Your task to perform on an android device: View the shopping cart on walmart. Add razer blade to the cart on walmart Image 0: 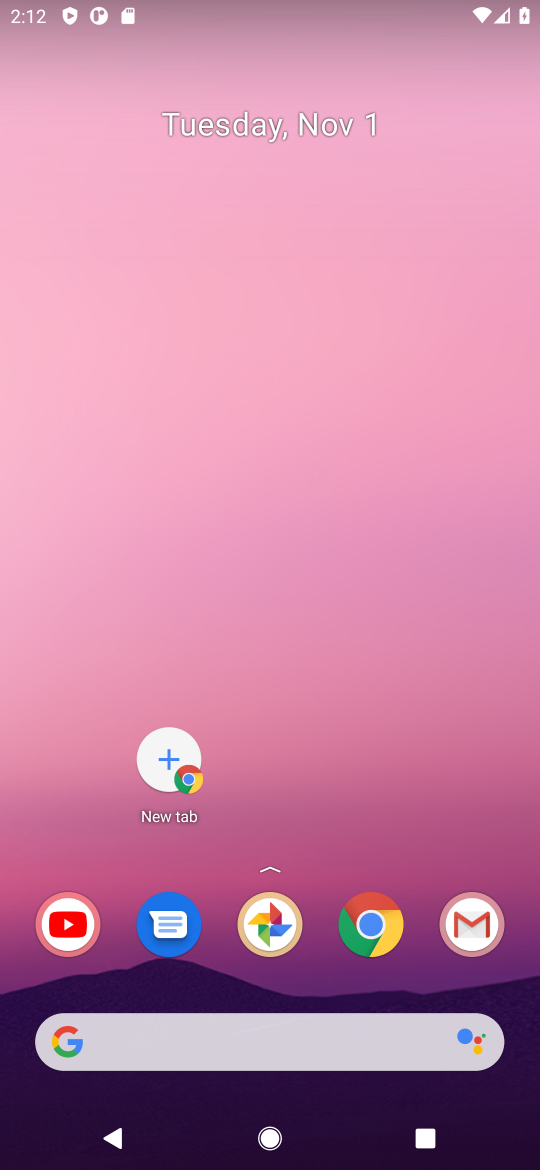
Step 0: click (366, 924)
Your task to perform on an android device: View the shopping cart on walmart. Add razer blade to the cart on walmart Image 1: 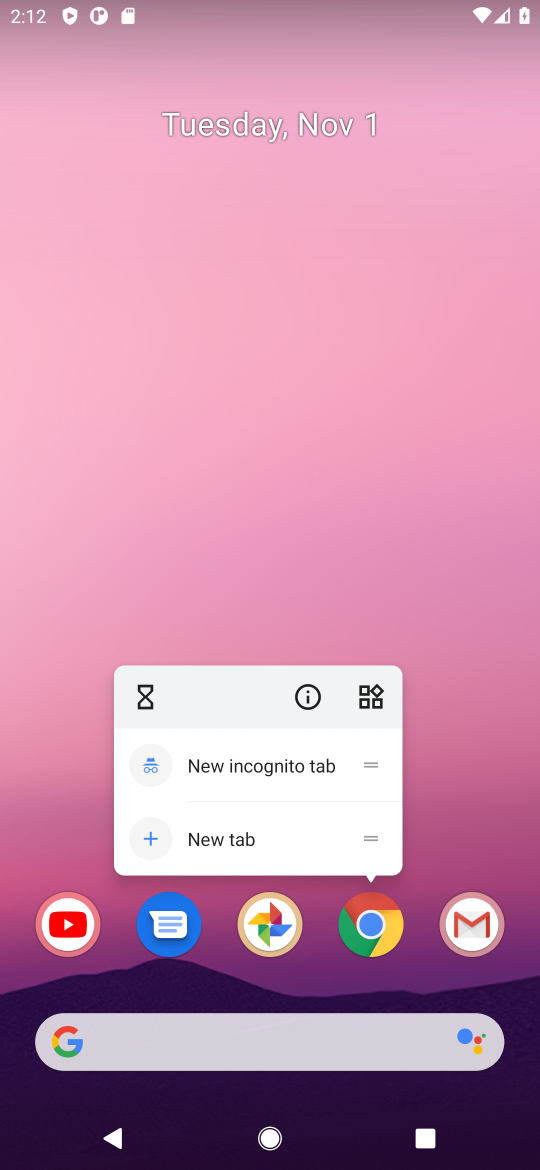
Step 1: click (379, 932)
Your task to perform on an android device: View the shopping cart on walmart. Add razer blade to the cart on walmart Image 2: 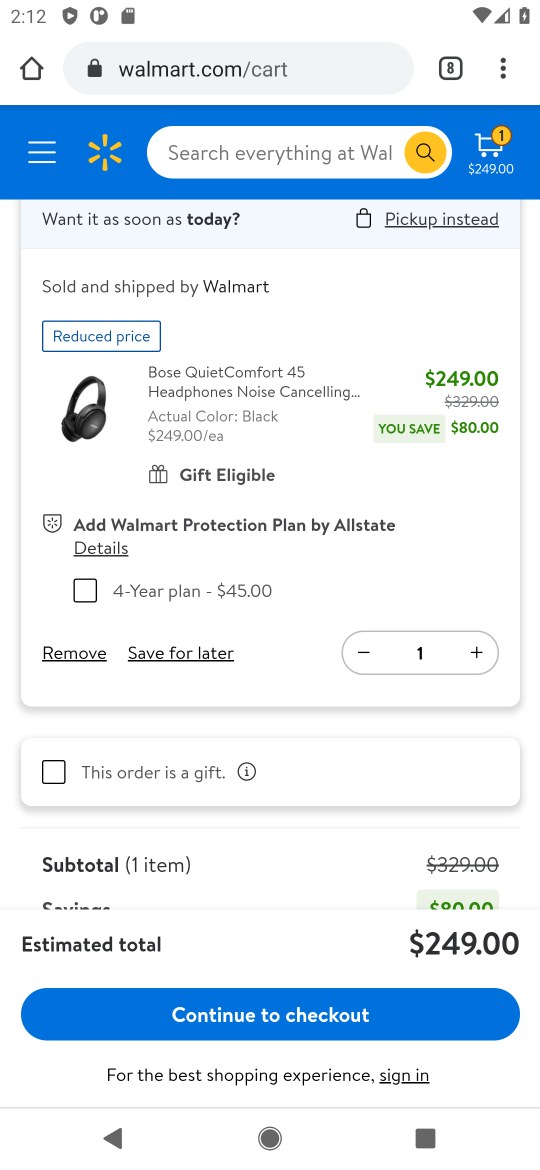
Step 2: click (334, 160)
Your task to perform on an android device: View the shopping cart on walmart. Add razer blade to the cart on walmart Image 3: 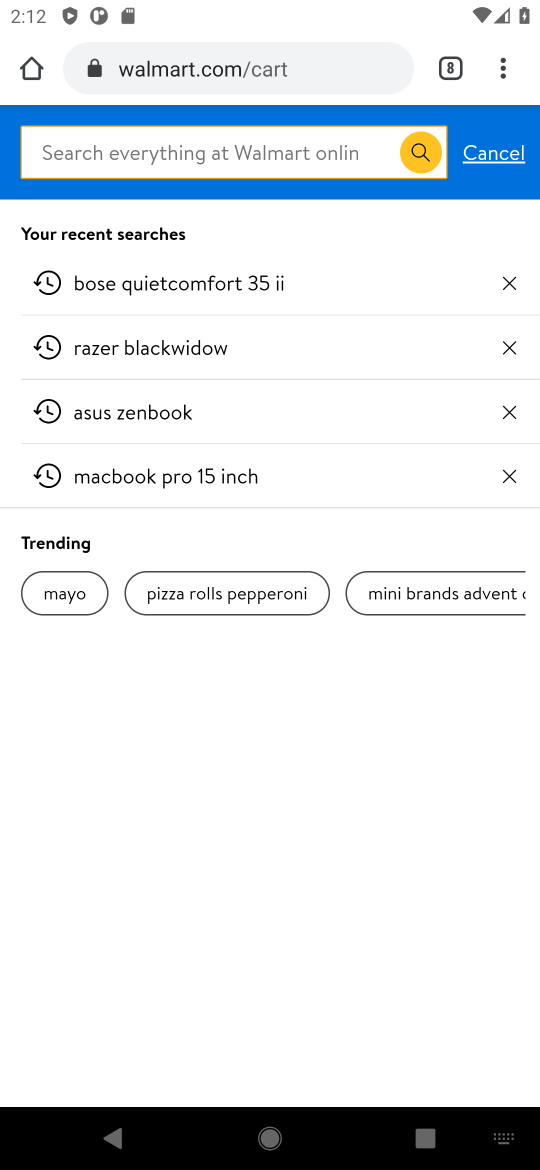
Step 3: type "shopping cart"
Your task to perform on an android device: View the shopping cart on walmart. Add razer blade to the cart on walmart Image 4: 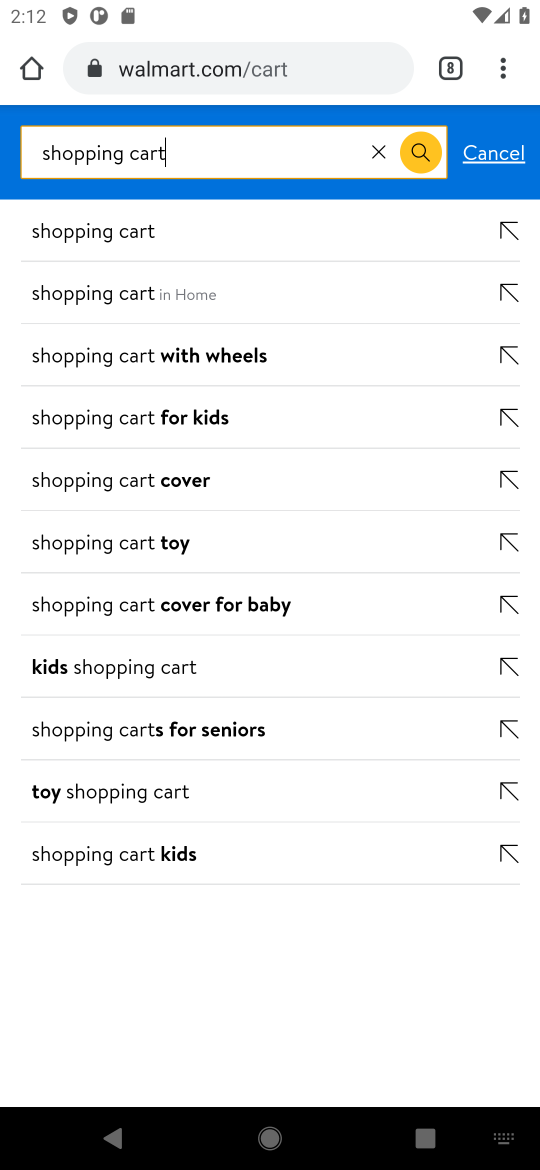
Step 4: click (69, 229)
Your task to perform on an android device: View the shopping cart on walmart. Add razer blade to the cart on walmart Image 5: 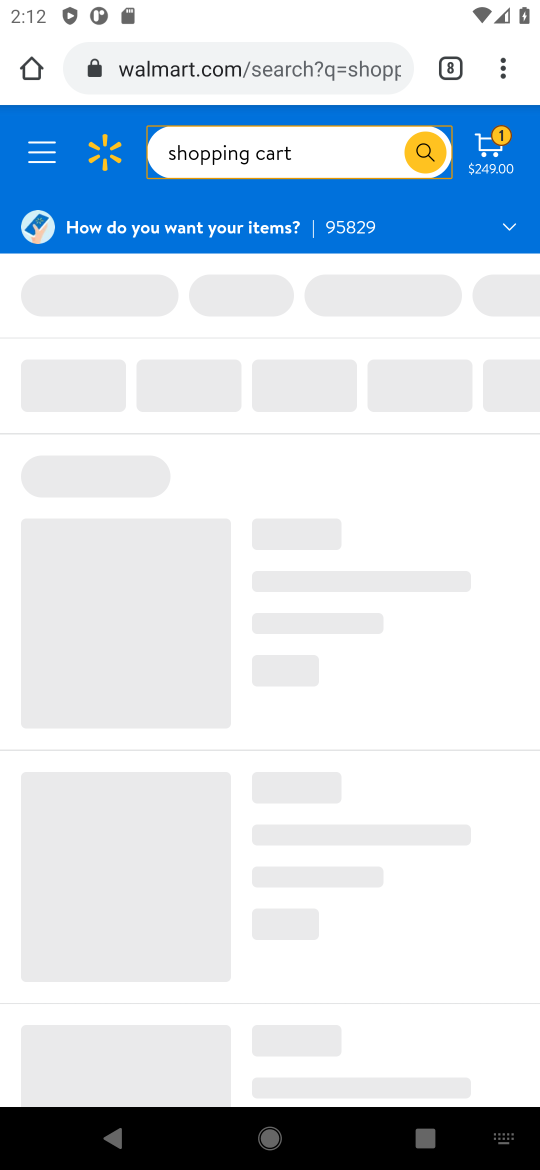
Step 5: click (508, 143)
Your task to perform on an android device: View the shopping cart on walmart. Add razer blade to the cart on walmart Image 6: 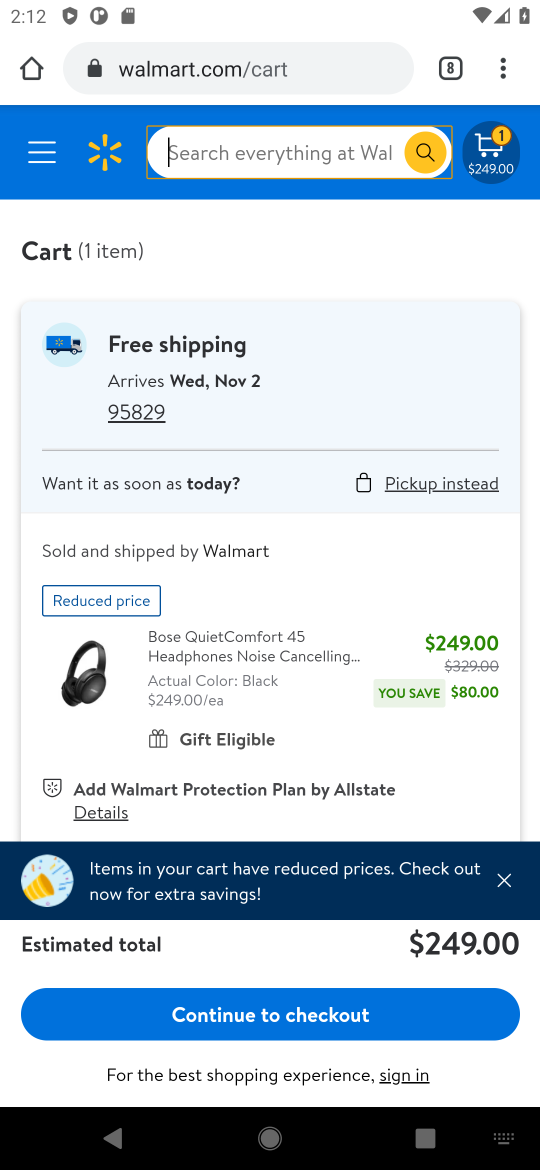
Step 6: click (507, 886)
Your task to perform on an android device: View the shopping cart on walmart. Add razer blade to the cart on walmart Image 7: 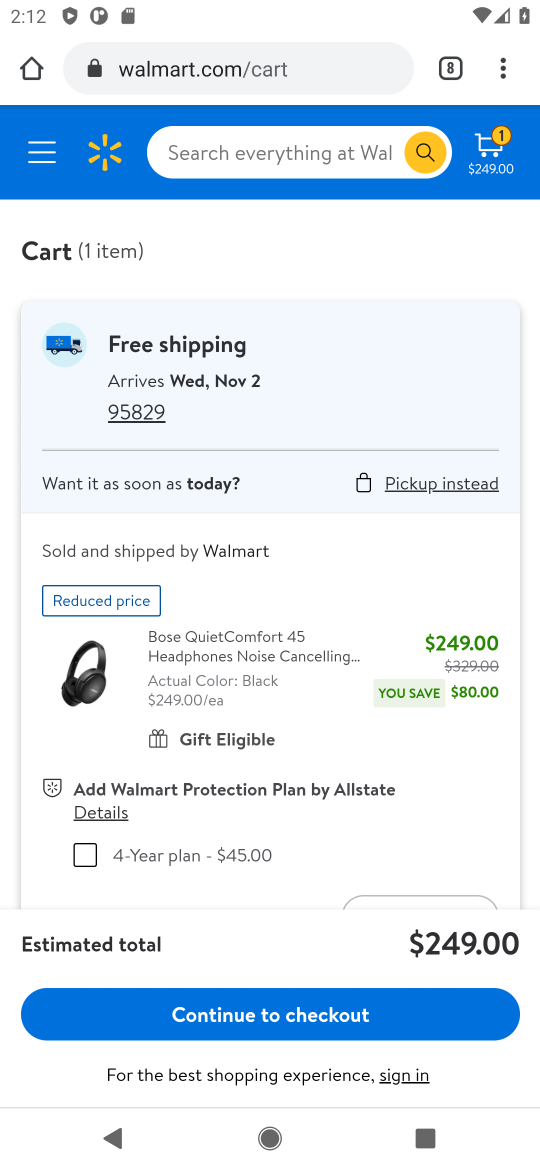
Step 7: drag from (225, 809) to (399, 233)
Your task to perform on an android device: View the shopping cart on walmart. Add razer blade to the cart on walmart Image 8: 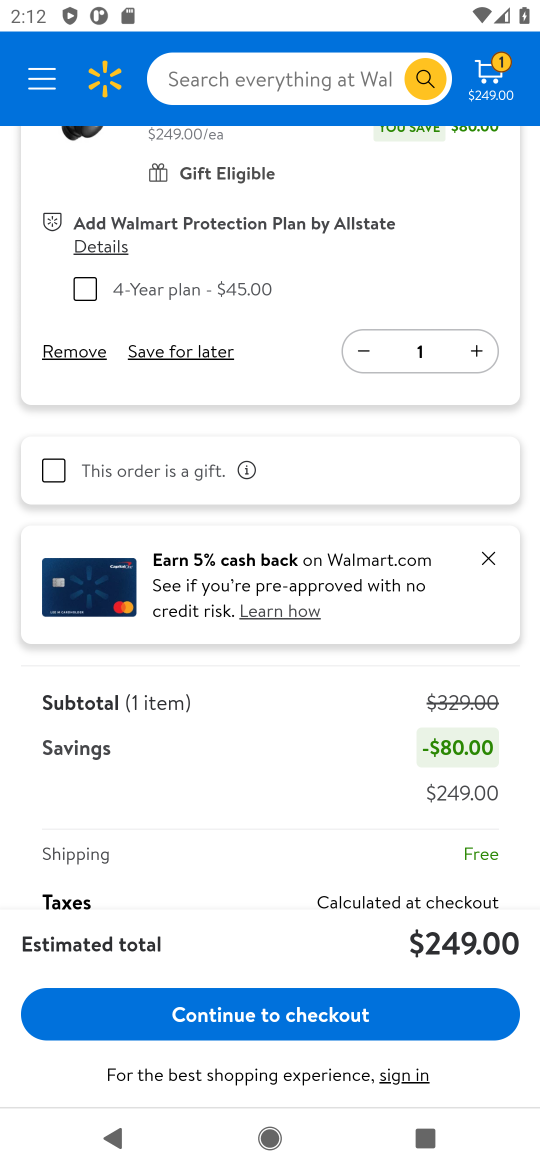
Step 8: click (82, 350)
Your task to perform on an android device: View the shopping cart on walmart. Add razer blade to the cart on walmart Image 9: 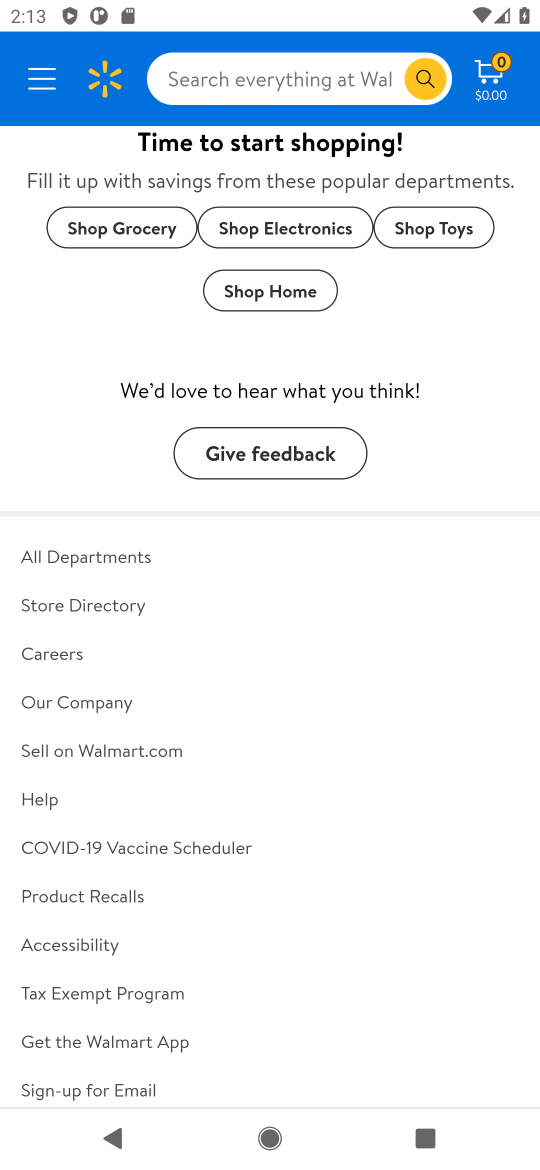
Step 9: drag from (182, 612) to (205, 249)
Your task to perform on an android device: View the shopping cart on walmart. Add razer blade to the cart on walmart Image 10: 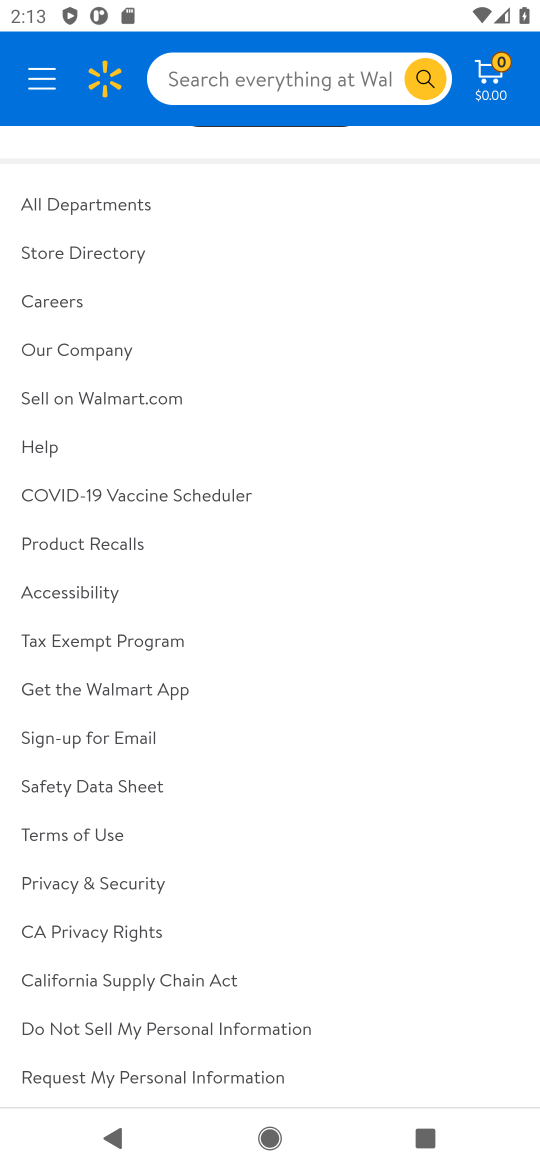
Step 10: drag from (308, 433) to (371, 988)
Your task to perform on an android device: View the shopping cart on walmart. Add razer blade to the cart on walmart Image 11: 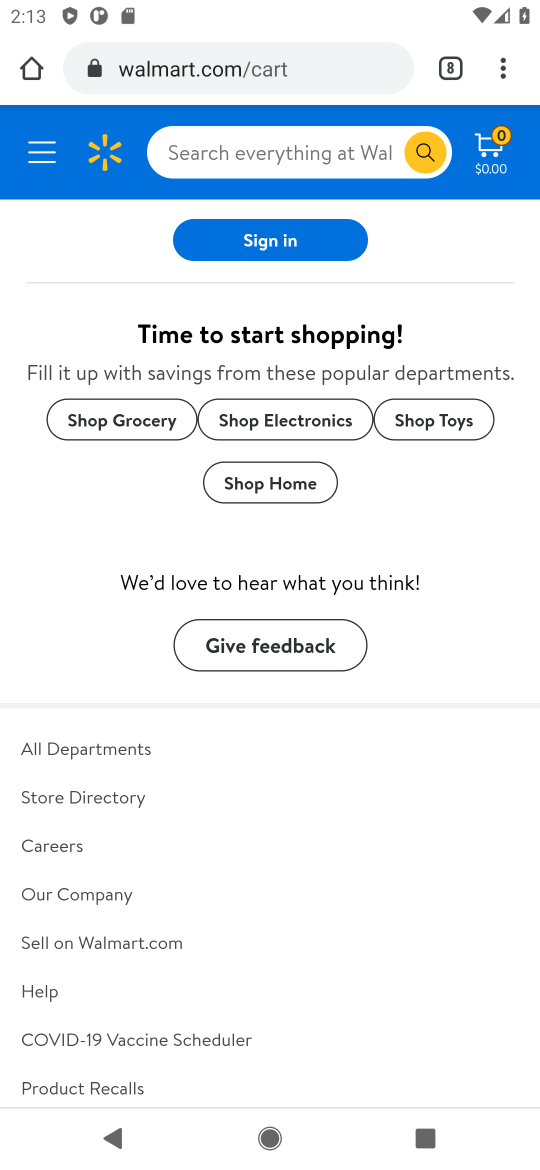
Step 11: drag from (331, 443) to (300, 842)
Your task to perform on an android device: View the shopping cart on walmart. Add razer blade to the cart on walmart Image 12: 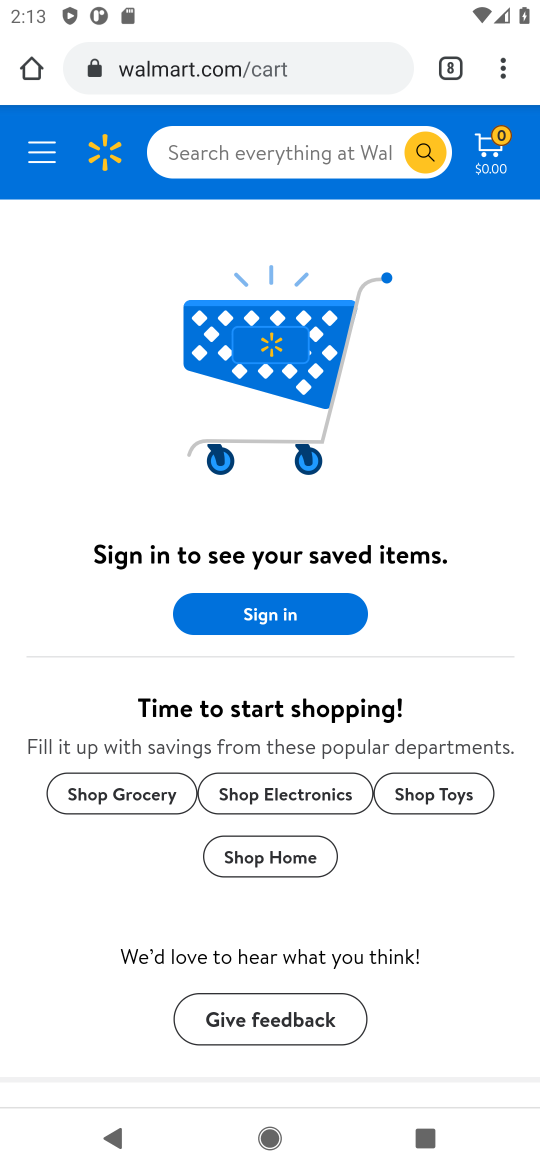
Step 12: click (212, 136)
Your task to perform on an android device: View the shopping cart on walmart. Add razer blade to the cart on walmart Image 13: 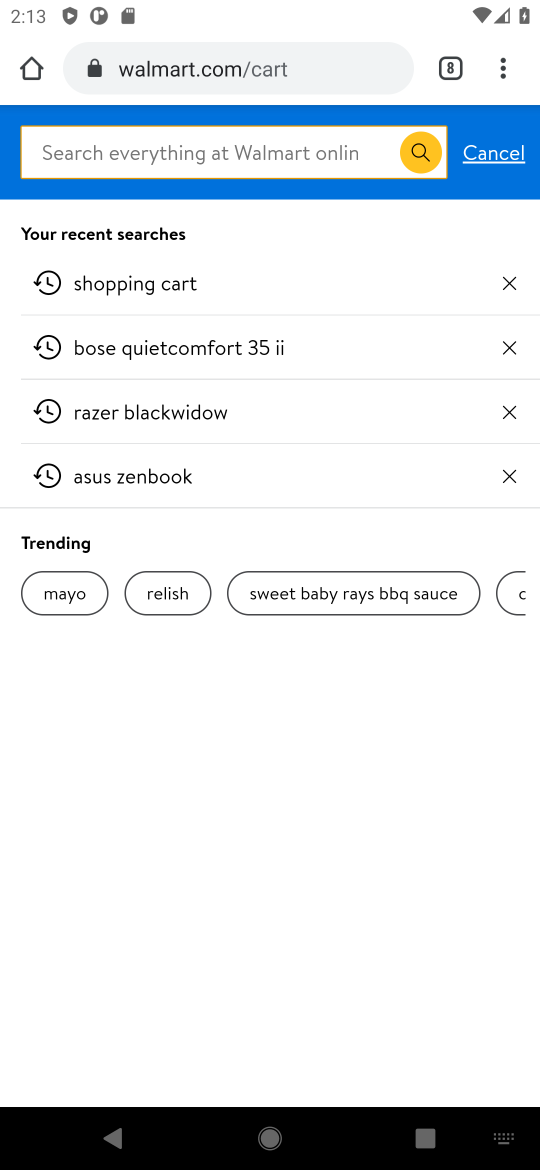
Step 13: drag from (411, 666) to (33, 655)
Your task to perform on an android device: View the shopping cart on walmart. Add razer blade to the cart on walmart Image 14: 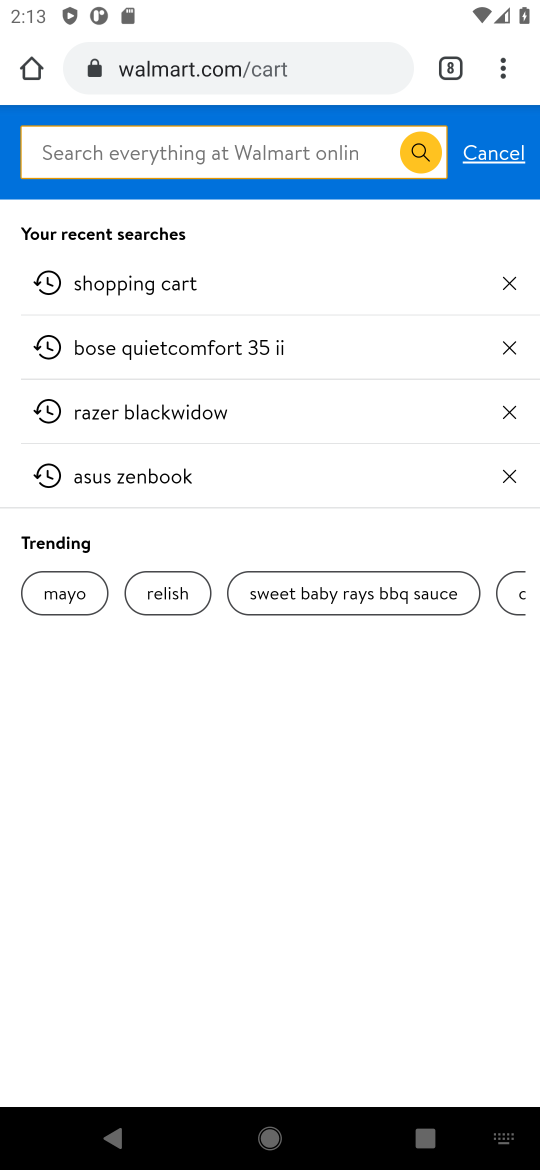
Step 14: drag from (420, 615) to (79, 603)
Your task to perform on an android device: View the shopping cart on walmart. Add razer blade to the cart on walmart Image 15: 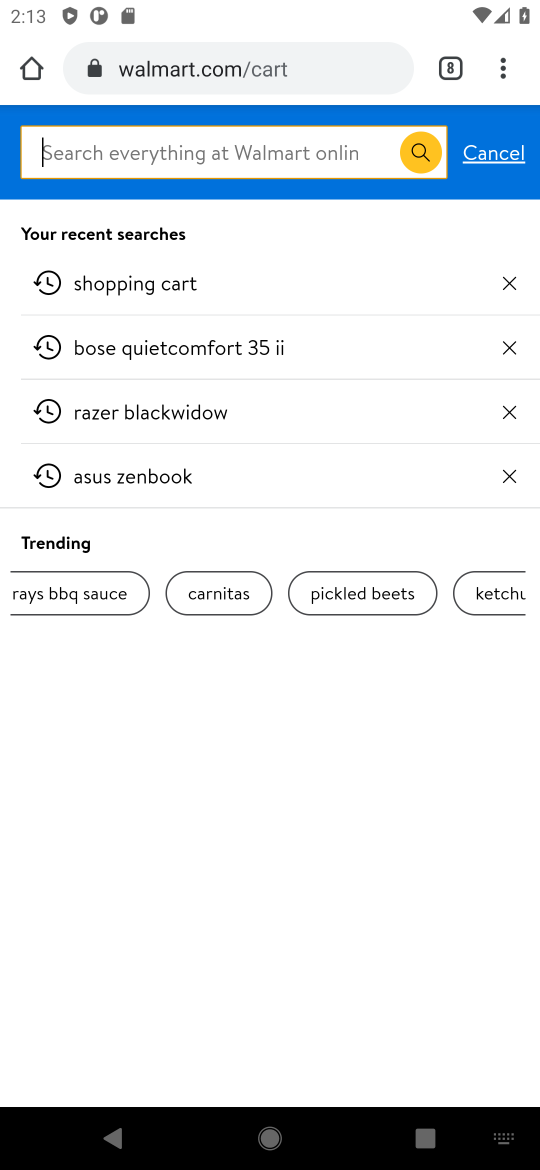
Step 15: drag from (234, 584) to (6, 539)
Your task to perform on an android device: View the shopping cart on walmart. Add razer blade to the cart on walmart Image 16: 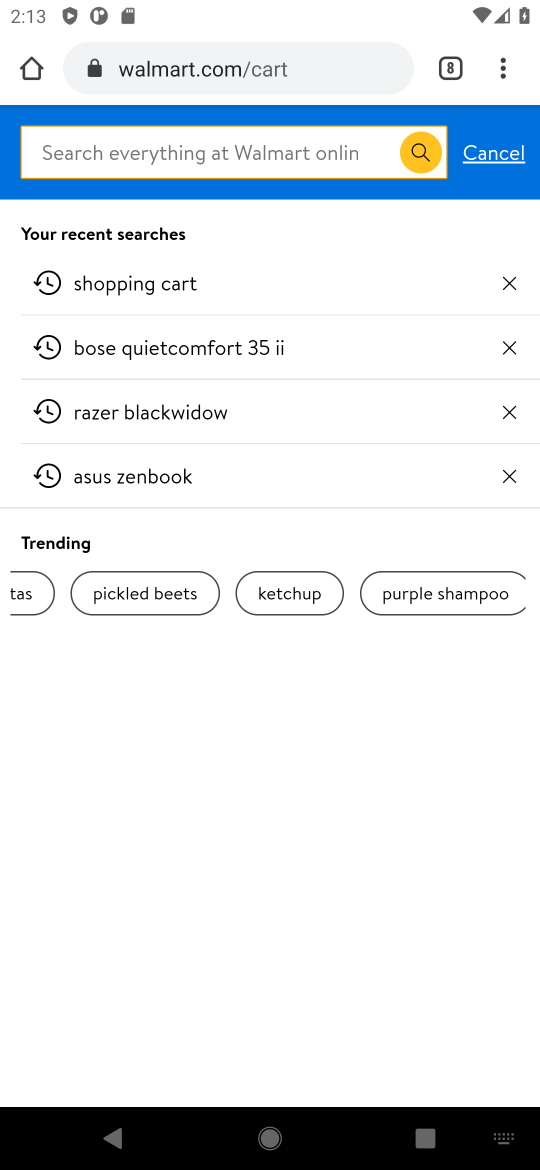
Step 16: type "razer blade"
Your task to perform on an android device: View the shopping cart on walmart. Add razer blade to the cart on walmart Image 17: 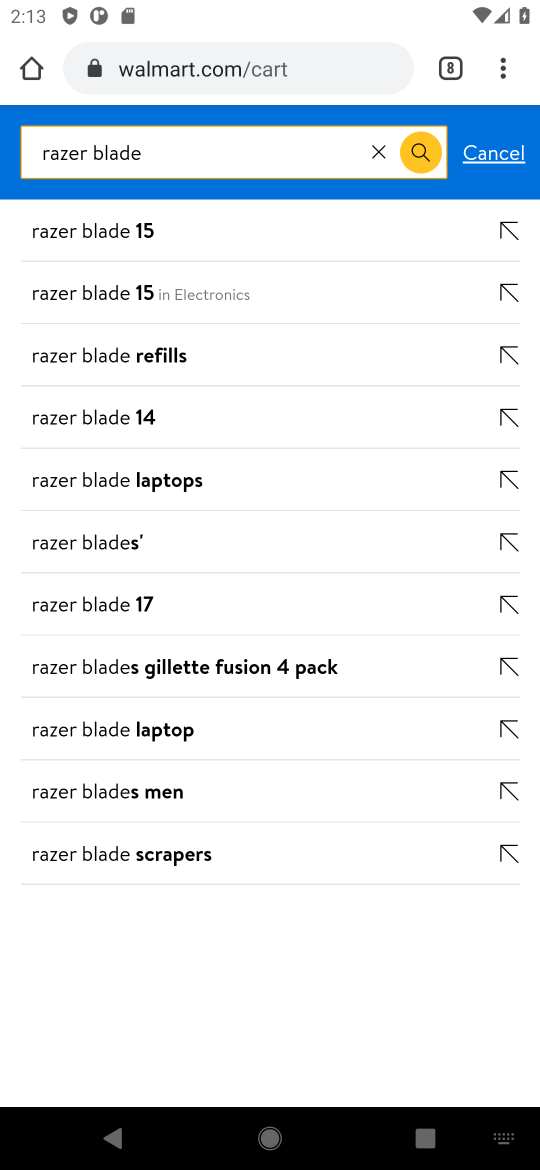
Step 17: click (61, 544)
Your task to perform on an android device: View the shopping cart on walmart. Add razer blade to the cart on walmart Image 18: 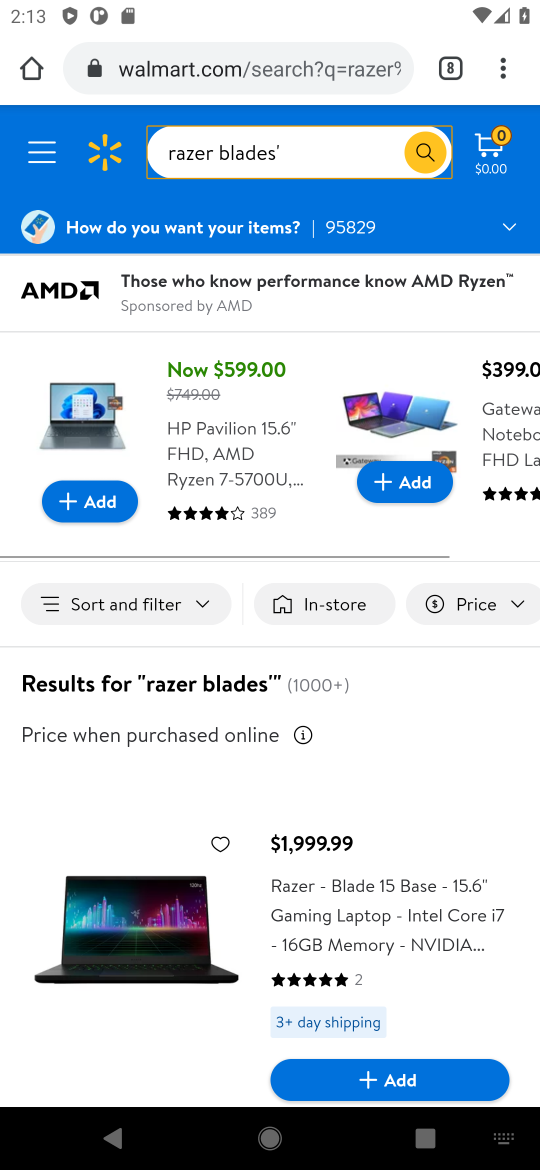
Step 18: drag from (239, 821) to (237, 503)
Your task to perform on an android device: View the shopping cart on walmart. Add razer blade to the cart on walmart Image 19: 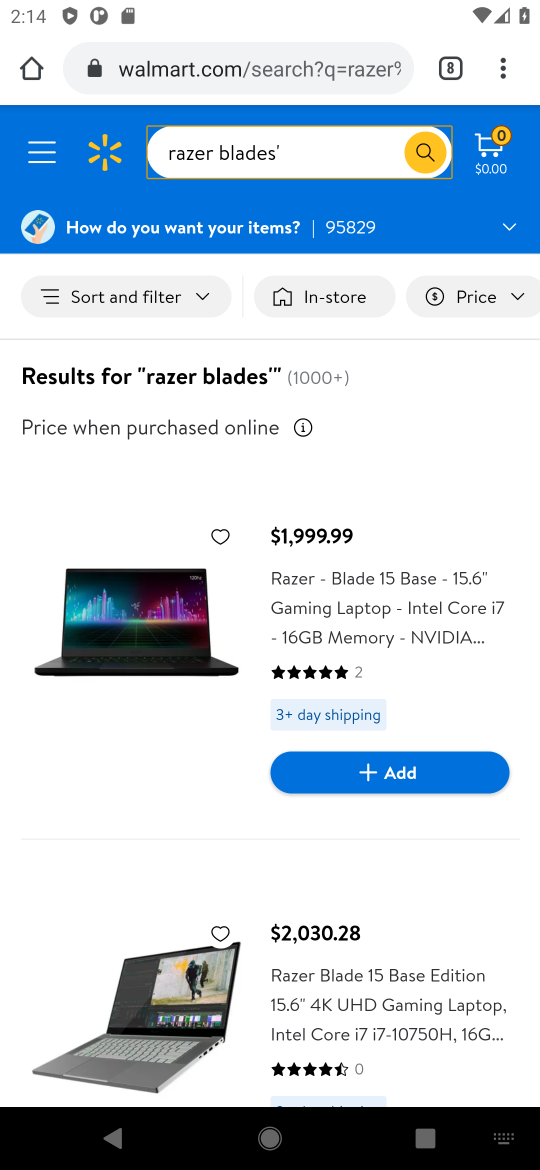
Step 19: click (177, 622)
Your task to perform on an android device: View the shopping cart on walmart. Add razer blade to the cart on walmart Image 20: 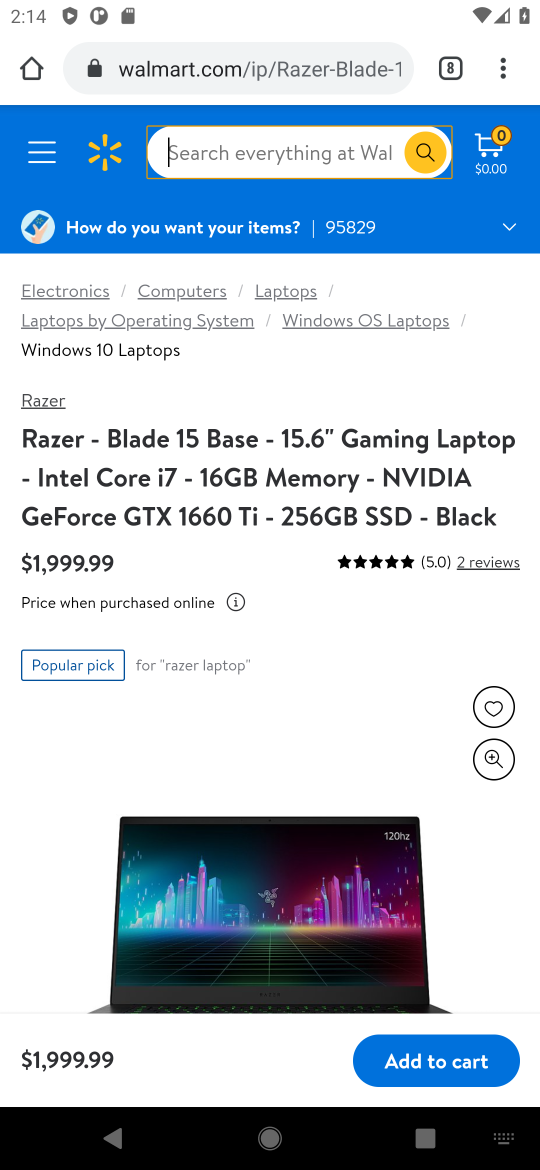
Step 20: drag from (233, 832) to (266, 604)
Your task to perform on an android device: View the shopping cart on walmart. Add razer blade to the cart on walmart Image 21: 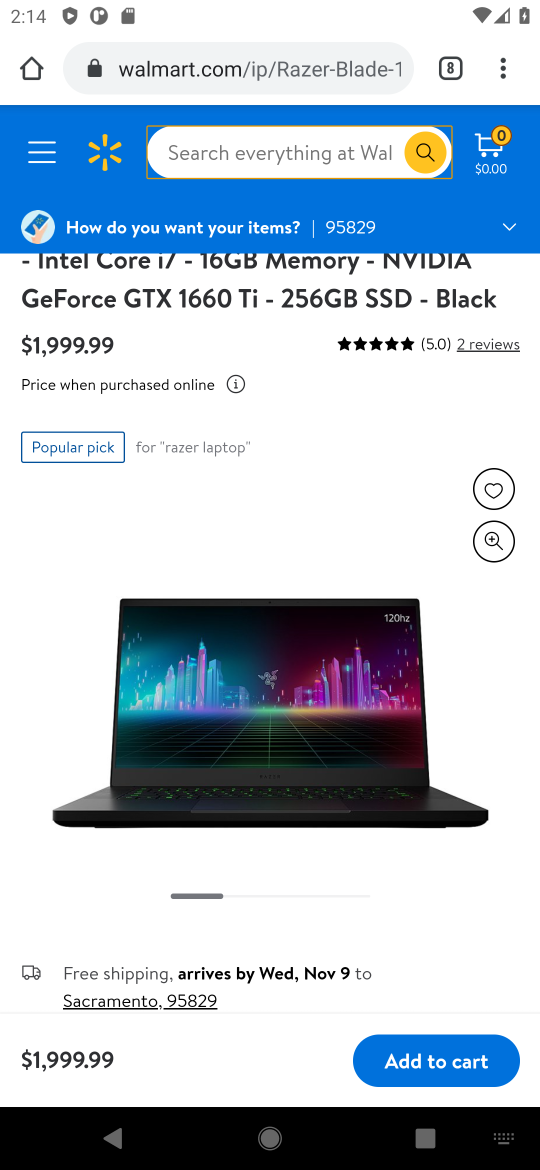
Step 21: click (418, 1060)
Your task to perform on an android device: View the shopping cart on walmart. Add razer blade to the cart on walmart Image 22: 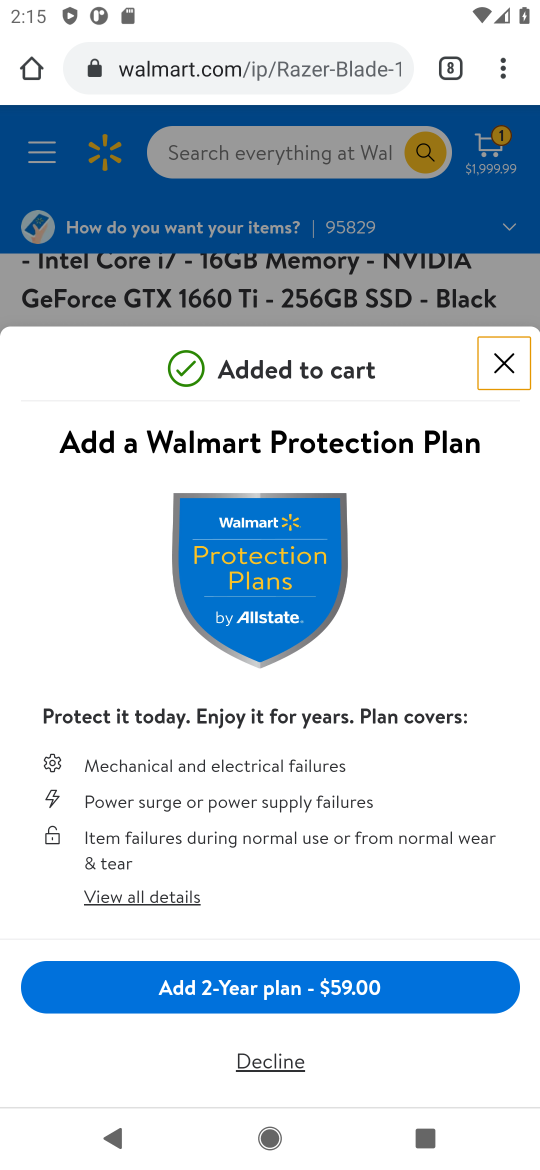
Step 22: click (508, 362)
Your task to perform on an android device: View the shopping cart on walmart. Add razer blade to the cart on walmart Image 23: 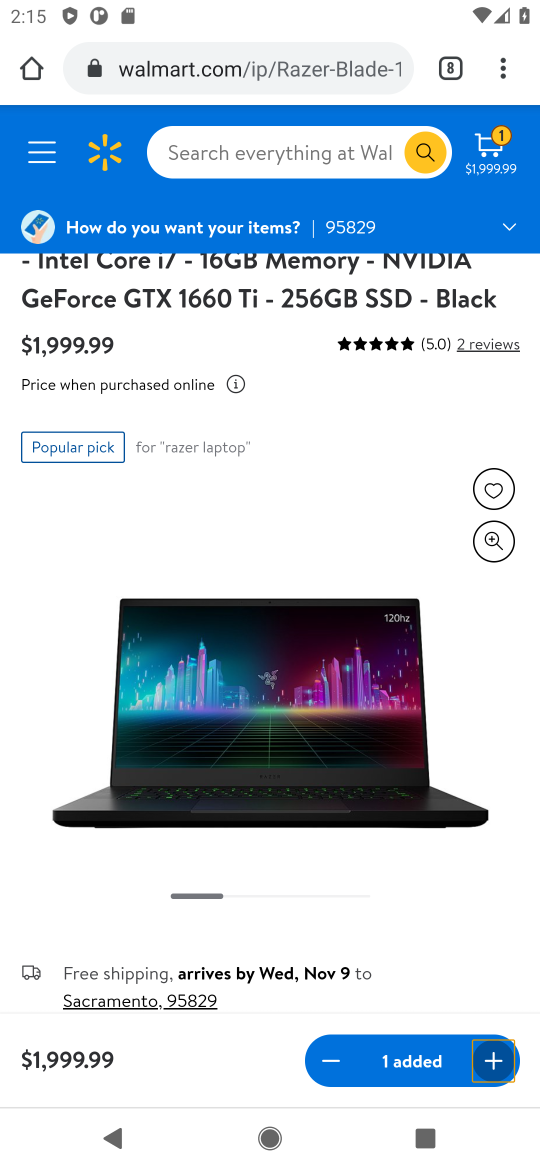
Step 23: drag from (327, 928) to (360, 693)
Your task to perform on an android device: View the shopping cart on walmart. Add razer blade to the cart on walmart Image 24: 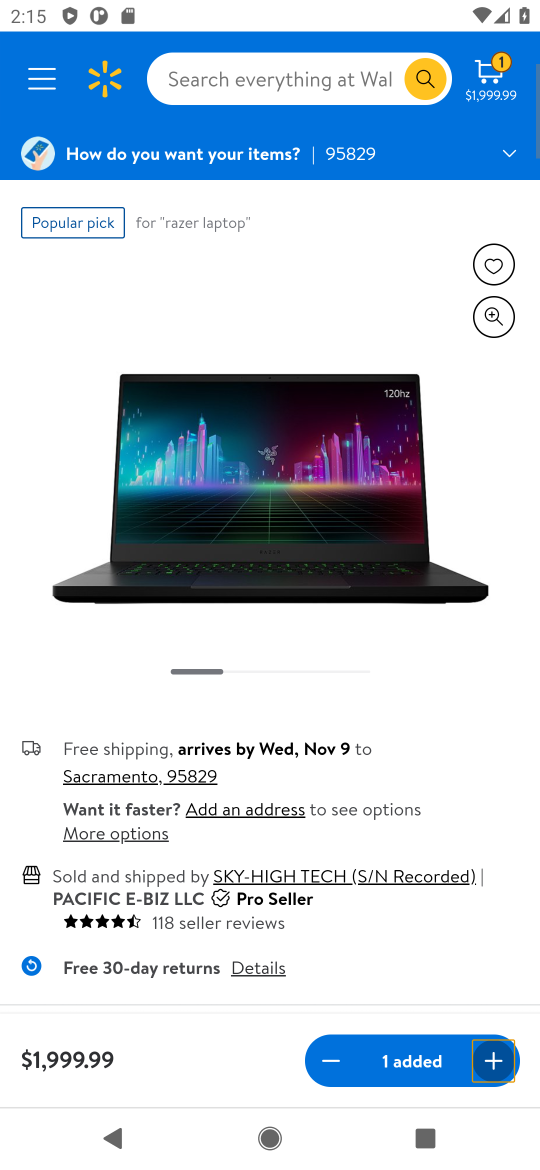
Step 24: click (501, 154)
Your task to perform on an android device: View the shopping cart on walmart. Add razer blade to the cart on walmart Image 25: 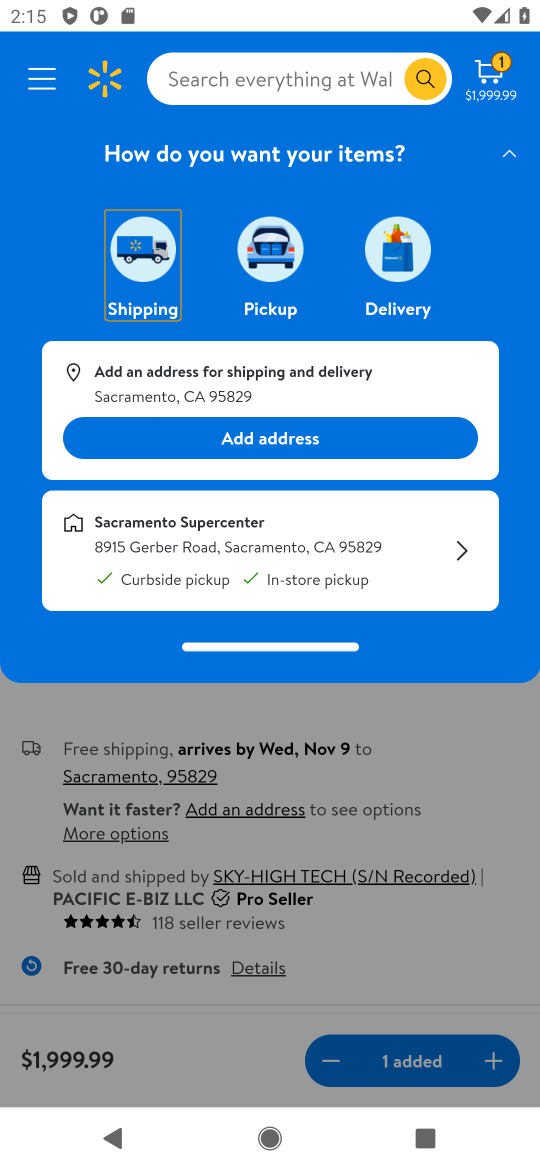
Step 25: task complete